Your task to perform on an android device: refresh tabs in the chrome app Image 0: 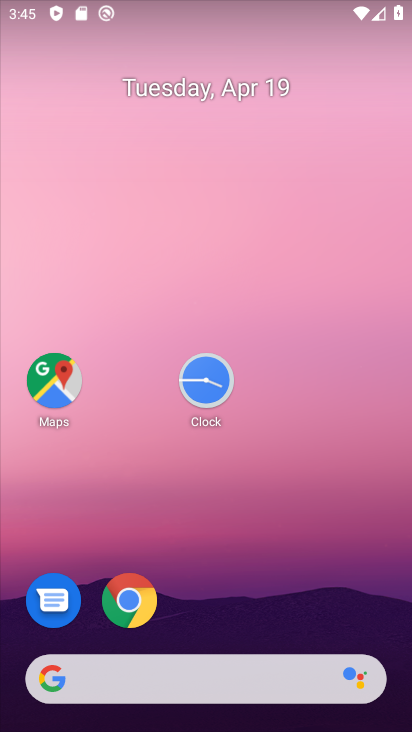
Step 0: drag from (360, 649) to (205, 194)
Your task to perform on an android device: refresh tabs in the chrome app Image 1: 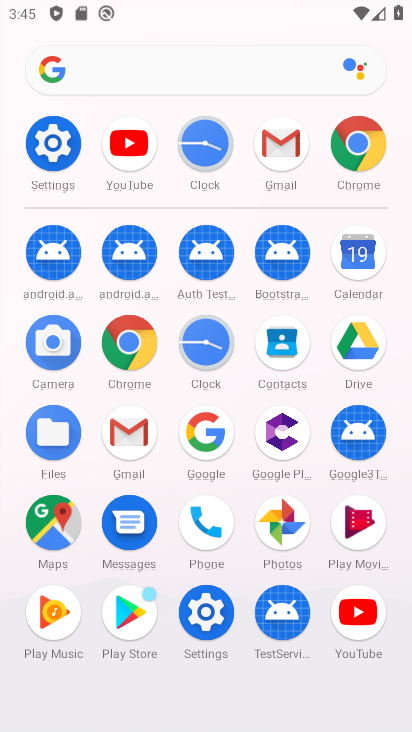
Step 1: click (360, 145)
Your task to perform on an android device: refresh tabs in the chrome app Image 2: 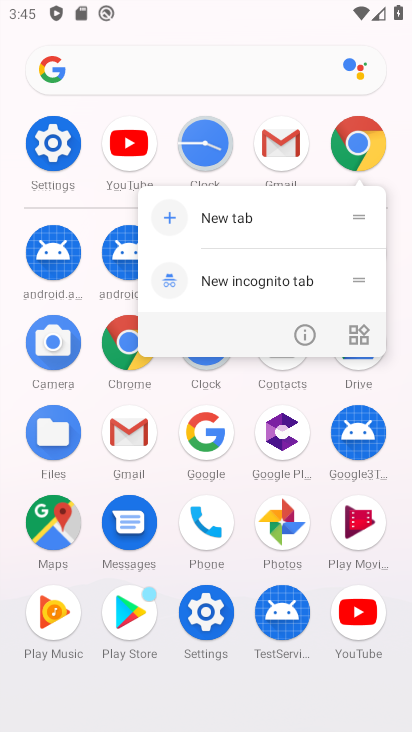
Step 2: click (360, 145)
Your task to perform on an android device: refresh tabs in the chrome app Image 3: 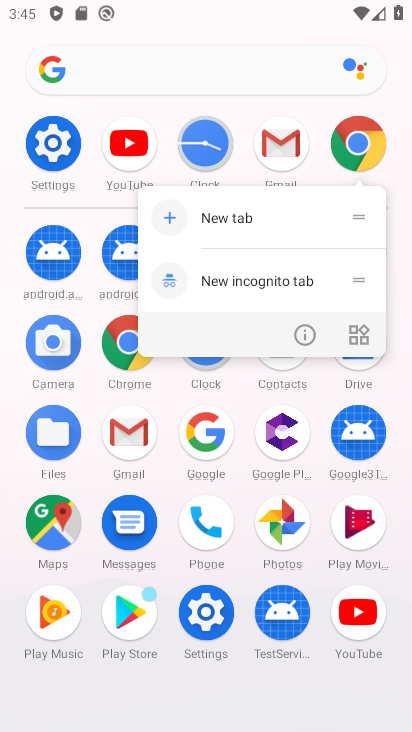
Step 3: click (363, 144)
Your task to perform on an android device: refresh tabs in the chrome app Image 4: 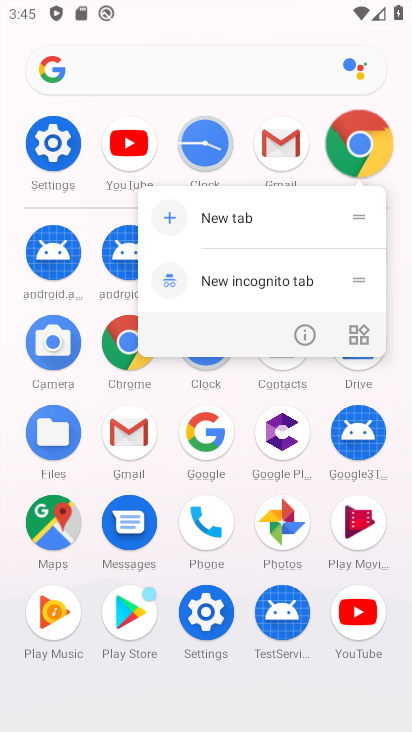
Step 4: click (364, 144)
Your task to perform on an android device: refresh tabs in the chrome app Image 5: 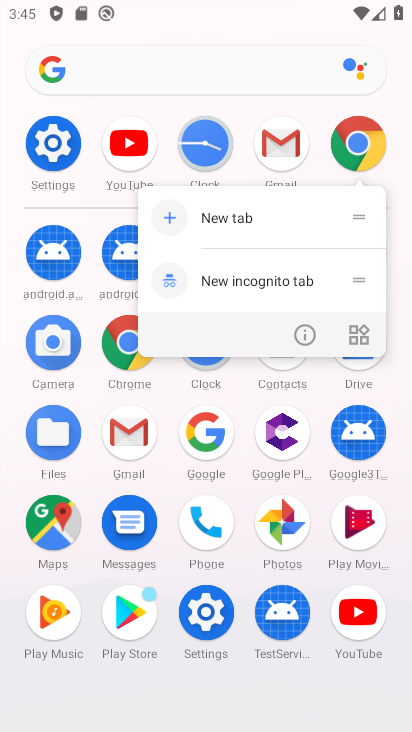
Step 5: click (368, 145)
Your task to perform on an android device: refresh tabs in the chrome app Image 6: 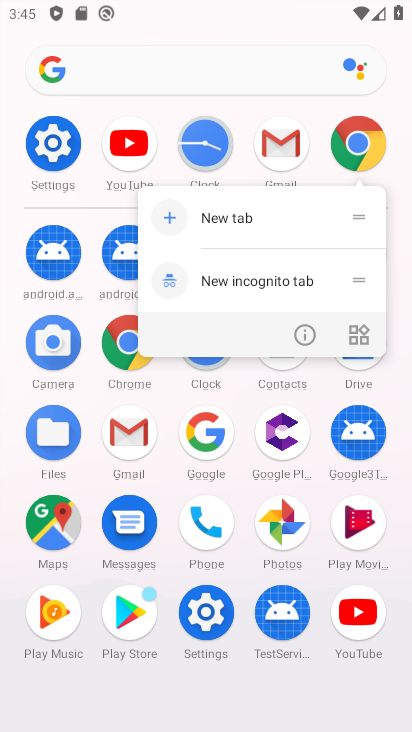
Step 6: click (352, 143)
Your task to perform on an android device: refresh tabs in the chrome app Image 7: 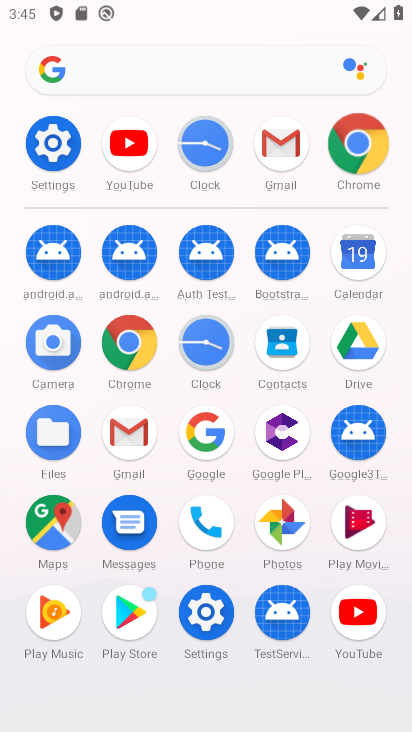
Step 7: click (352, 142)
Your task to perform on an android device: refresh tabs in the chrome app Image 8: 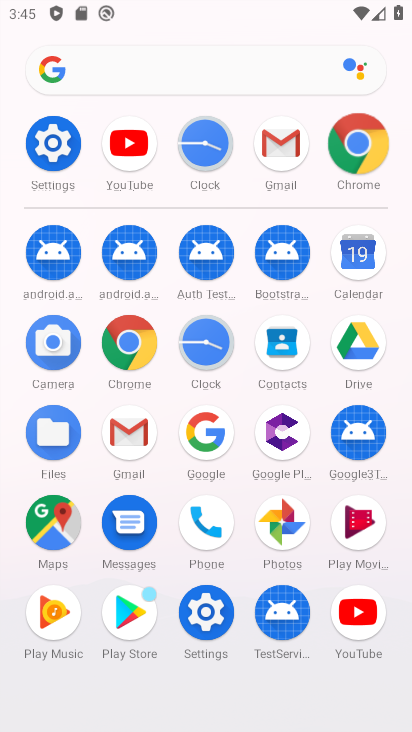
Step 8: click (352, 142)
Your task to perform on an android device: refresh tabs in the chrome app Image 9: 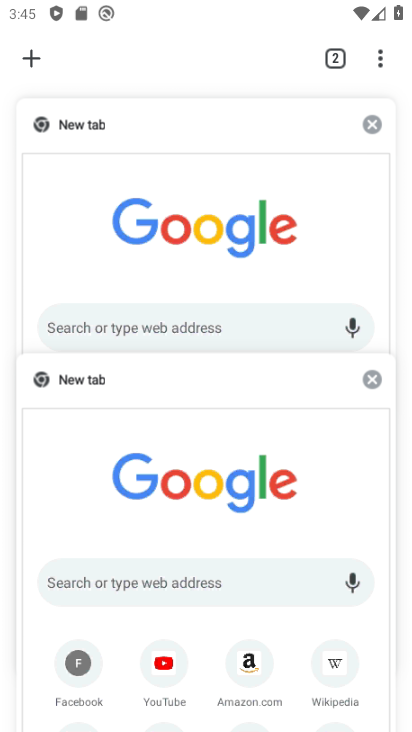
Step 9: click (375, 53)
Your task to perform on an android device: refresh tabs in the chrome app Image 10: 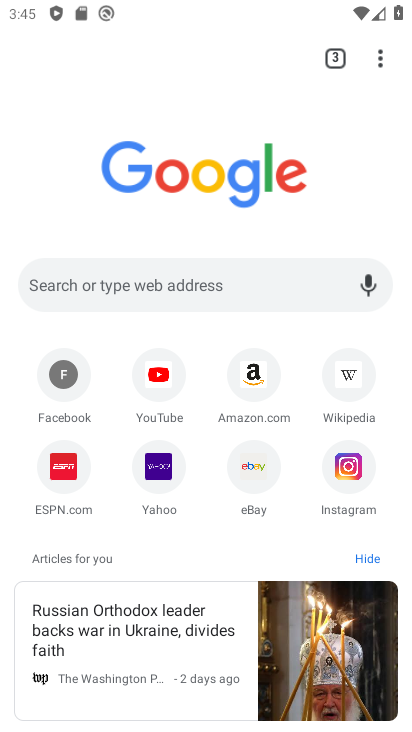
Step 10: click (375, 53)
Your task to perform on an android device: refresh tabs in the chrome app Image 11: 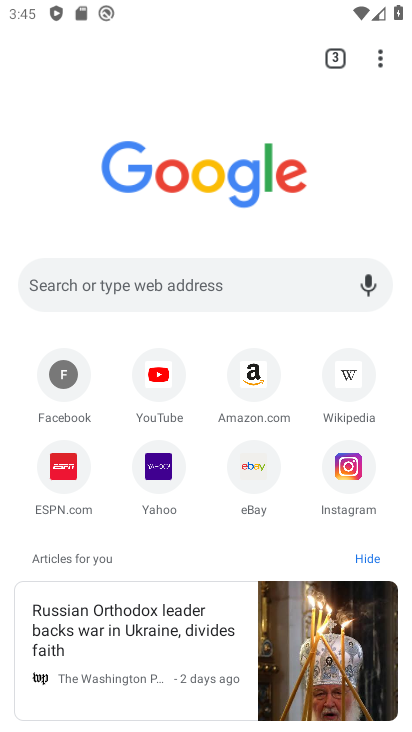
Step 11: click (377, 56)
Your task to perform on an android device: refresh tabs in the chrome app Image 12: 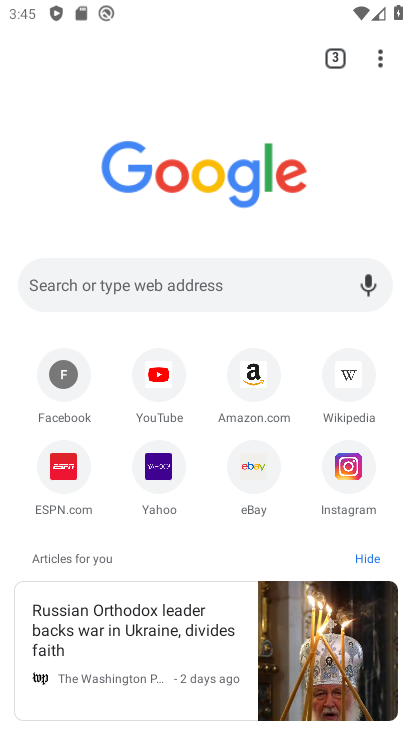
Step 12: click (378, 56)
Your task to perform on an android device: refresh tabs in the chrome app Image 13: 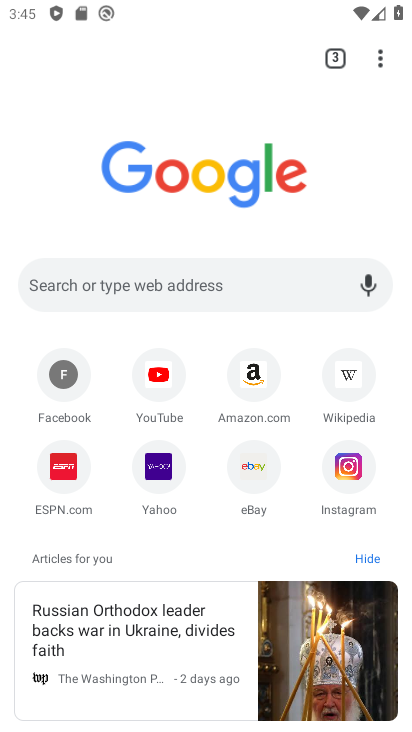
Step 13: click (377, 59)
Your task to perform on an android device: refresh tabs in the chrome app Image 14: 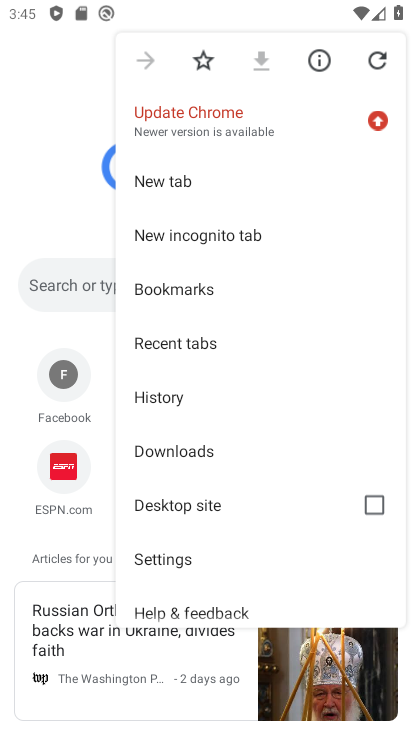
Step 14: click (381, 58)
Your task to perform on an android device: refresh tabs in the chrome app Image 15: 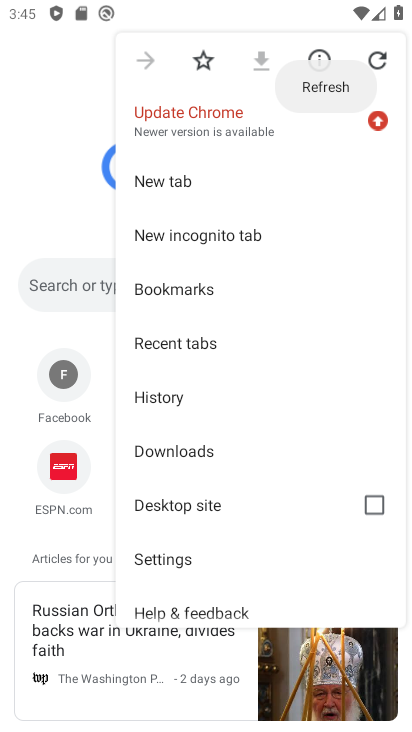
Step 15: click (374, 58)
Your task to perform on an android device: refresh tabs in the chrome app Image 16: 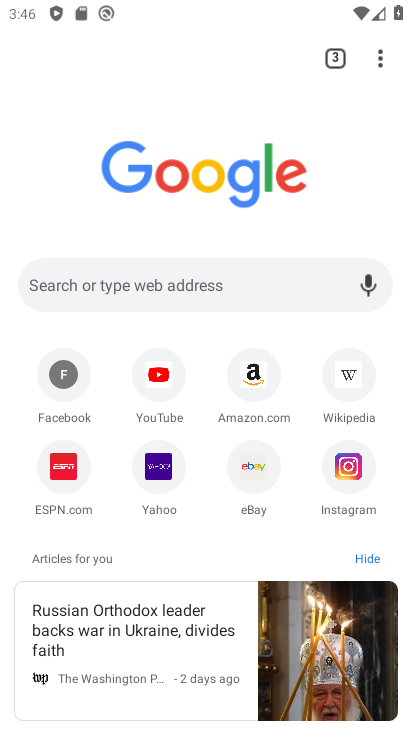
Step 16: task complete